Your task to perform on an android device: open a bookmark in the chrome app Image 0: 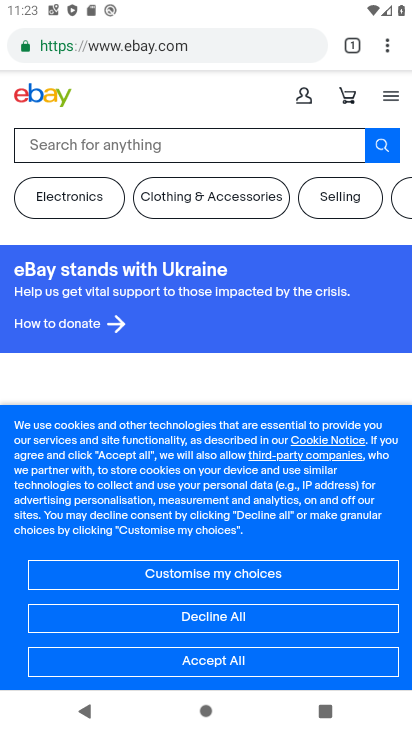
Step 0: drag from (320, 571) to (373, 163)
Your task to perform on an android device: open a bookmark in the chrome app Image 1: 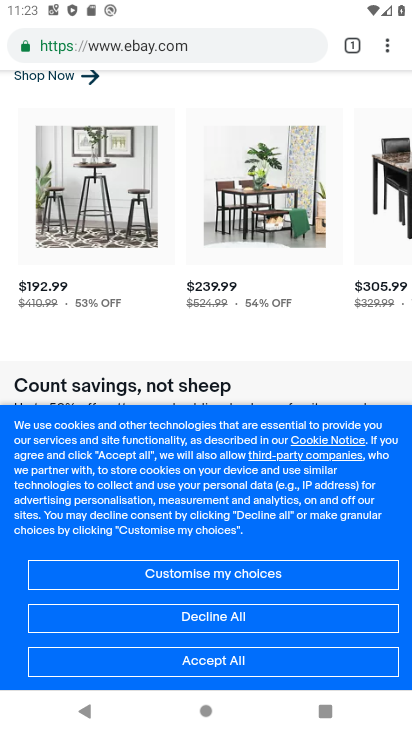
Step 1: press home button
Your task to perform on an android device: open a bookmark in the chrome app Image 2: 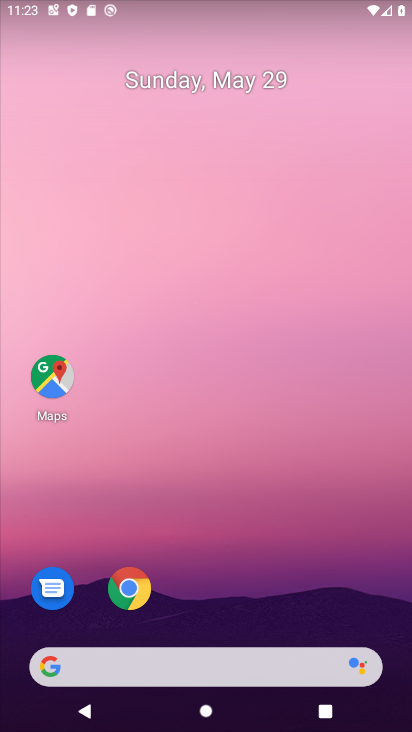
Step 2: drag from (299, 616) to (358, 21)
Your task to perform on an android device: open a bookmark in the chrome app Image 3: 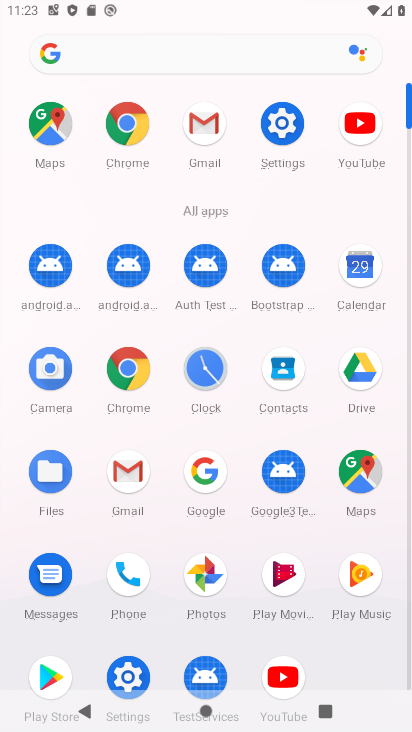
Step 3: click (144, 125)
Your task to perform on an android device: open a bookmark in the chrome app Image 4: 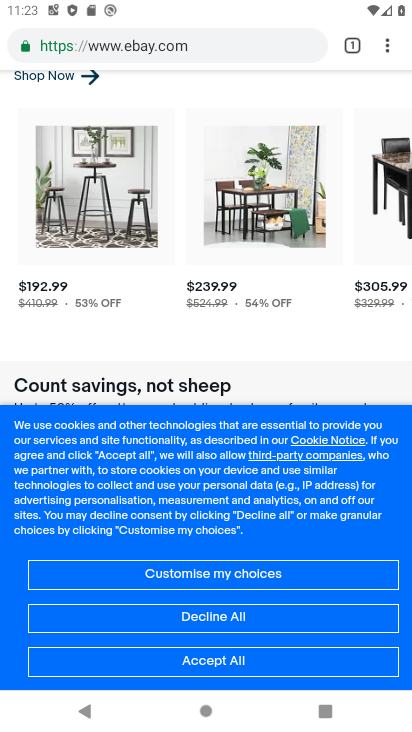
Step 4: drag from (389, 50) to (265, 187)
Your task to perform on an android device: open a bookmark in the chrome app Image 5: 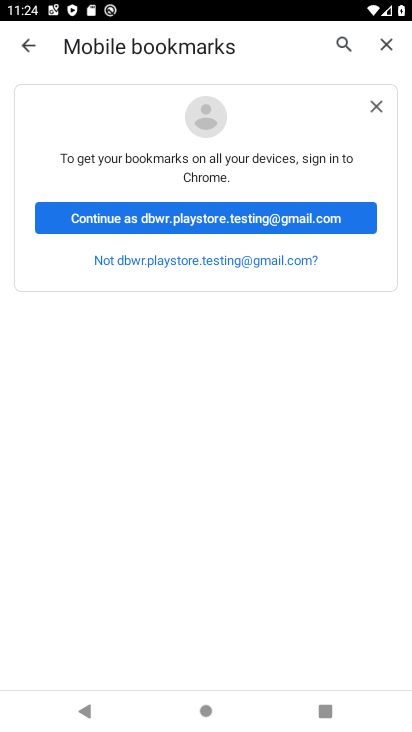
Step 5: click (235, 226)
Your task to perform on an android device: open a bookmark in the chrome app Image 6: 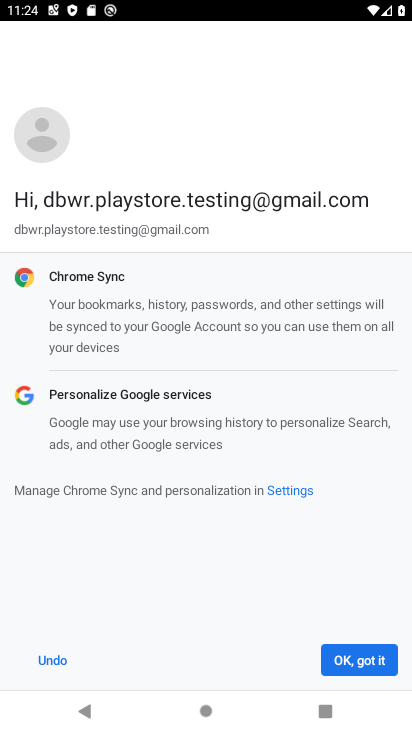
Step 6: click (380, 652)
Your task to perform on an android device: open a bookmark in the chrome app Image 7: 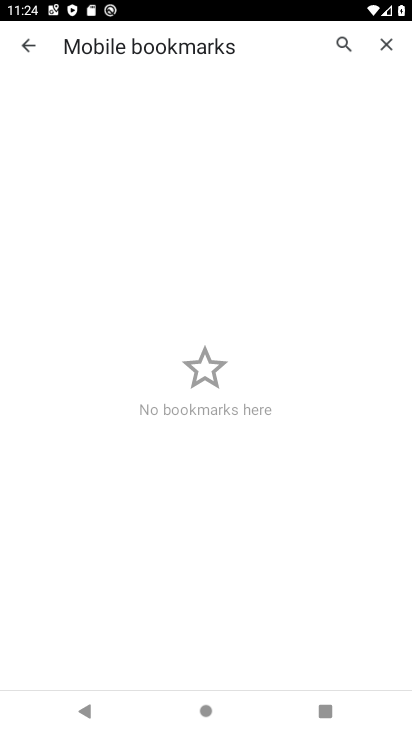
Step 7: task complete